Your task to perform on an android device: open a bookmark in the chrome app Image 0: 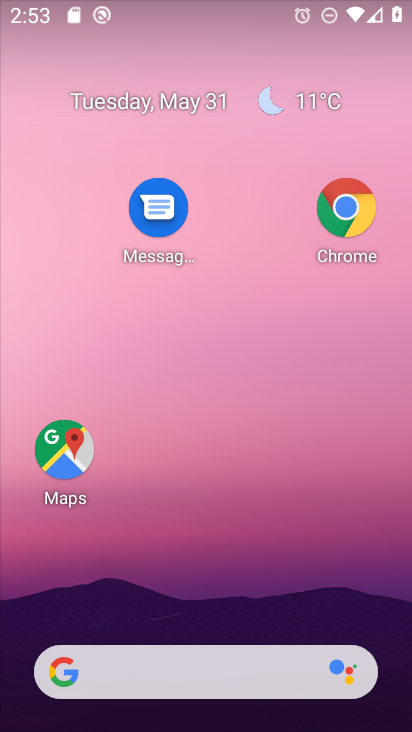
Step 0: click (319, 61)
Your task to perform on an android device: open a bookmark in the chrome app Image 1: 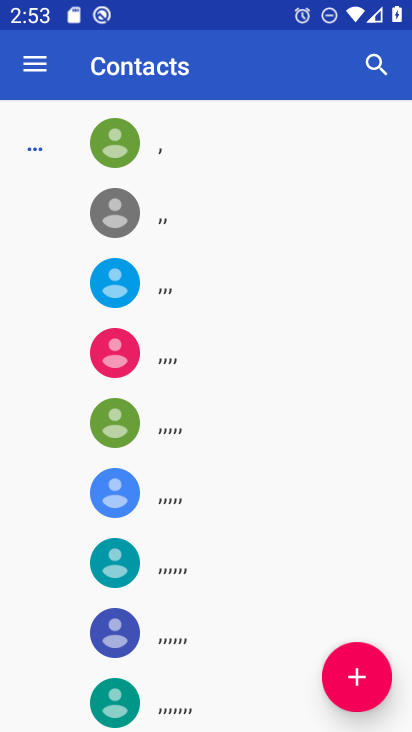
Step 1: press home button
Your task to perform on an android device: open a bookmark in the chrome app Image 2: 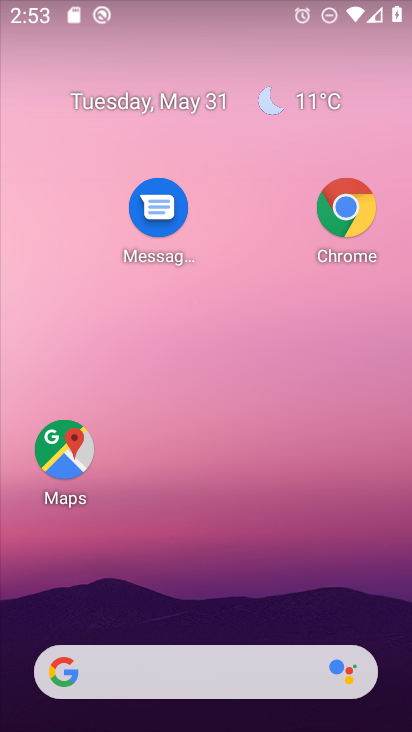
Step 2: drag from (199, 573) to (233, 40)
Your task to perform on an android device: open a bookmark in the chrome app Image 3: 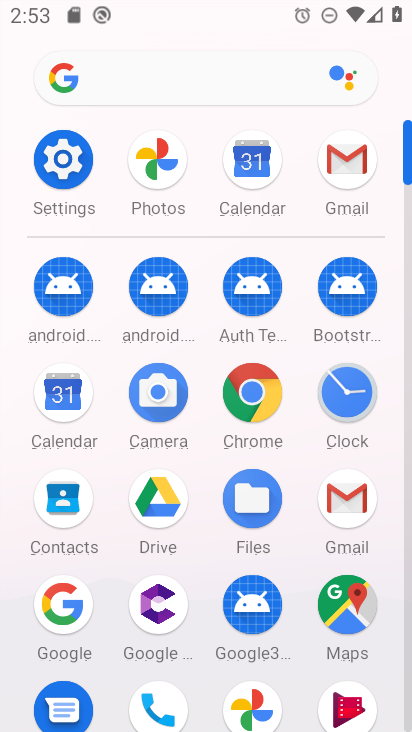
Step 3: click (250, 383)
Your task to perform on an android device: open a bookmark in the chrome app Image 4: 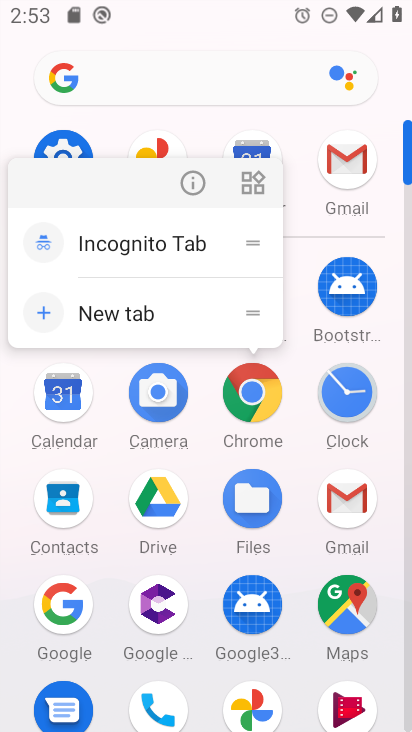
Step 4: click (187, 179)
Your task to perform on an android device: open a bookmark in the chrome app Image 5: 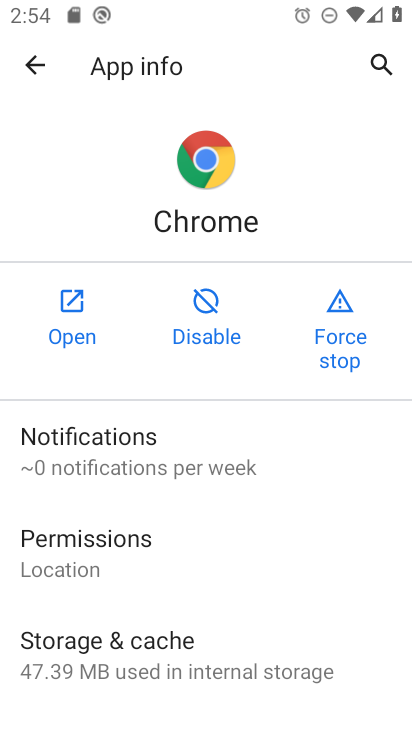
Step 5: click (85, 307)
Your task to perform on an android device: open a bookmark in the chrome app Image 6: 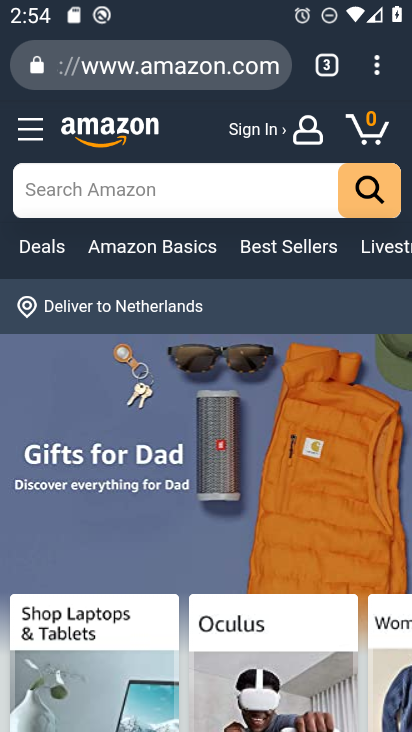
Step 6: task complete